Your task to perform on an android device: snooze an email in the gmail app Image 0: 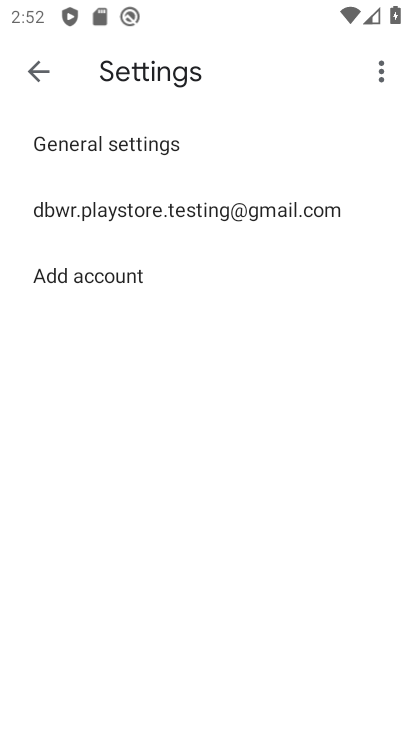
Step 0: press back button
Your task to perform on an android device: snooze an email in the gmail app Image 1: 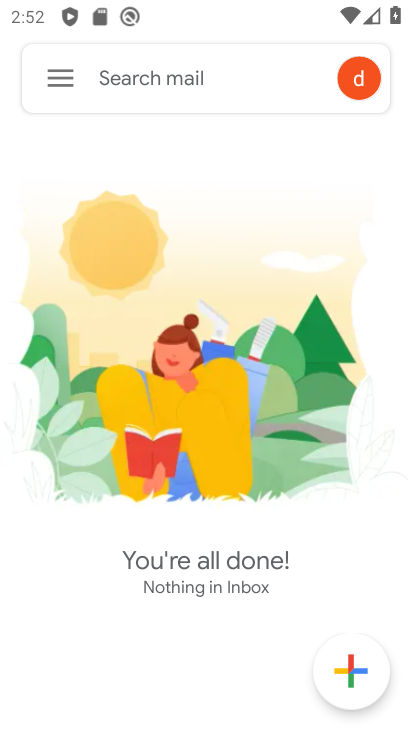
Step 1: click (58, 81)
Your task to perform on an android device: snooze an email in the gmail app Image 2: 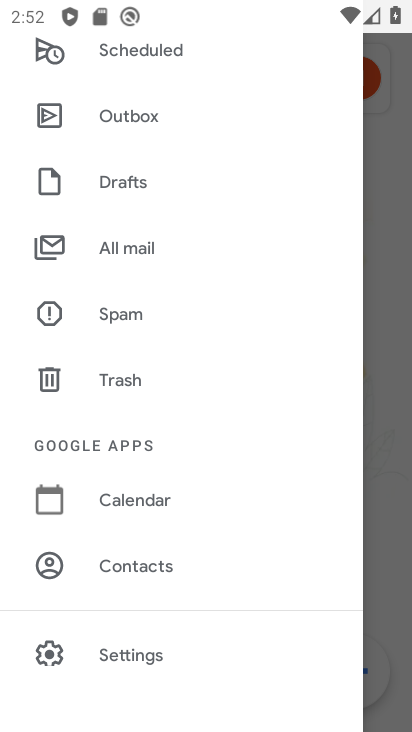
Step 2: click (132, 238)
Your task to perform on an android device: snooze an email in the gmail app Image 3: 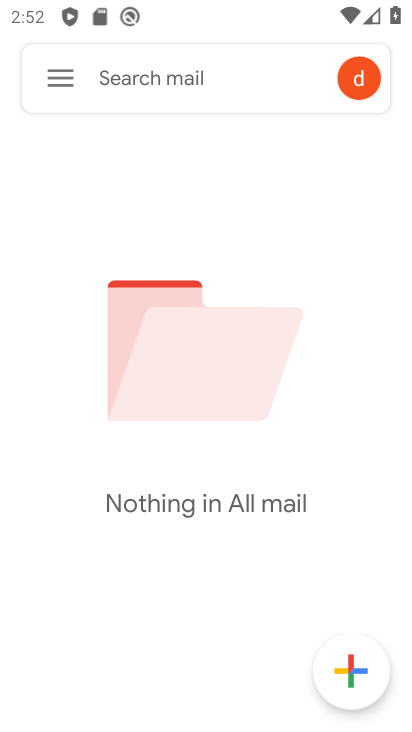
Step 3: task complete